Your task to perform on an android device: turn off smart reply in the gmail app Image 0: 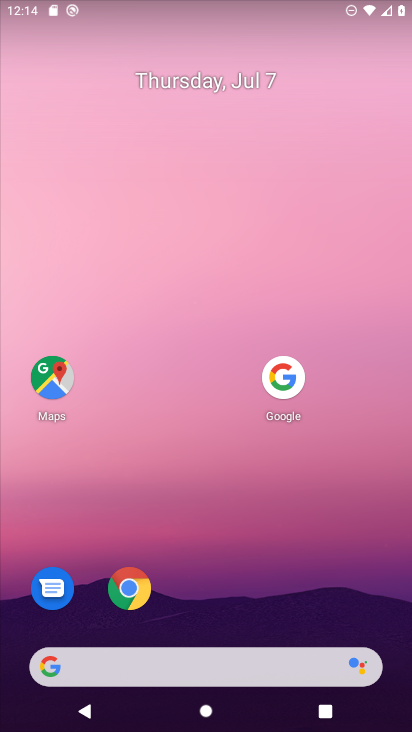
Step 0: drag from (240, 649) to (249, 63)
Your task to perform on an android device: turn off smart reply in the gmail app Image 1: 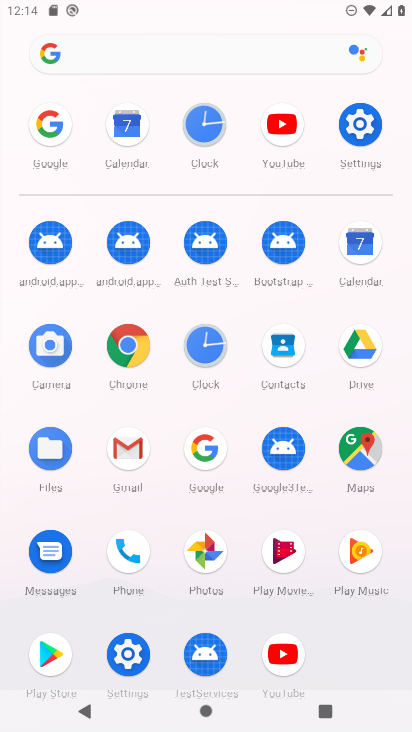
Step 1: click (135, 448)
Your task to perform on an android device: turn off smart reply in the gmail app Image 2: 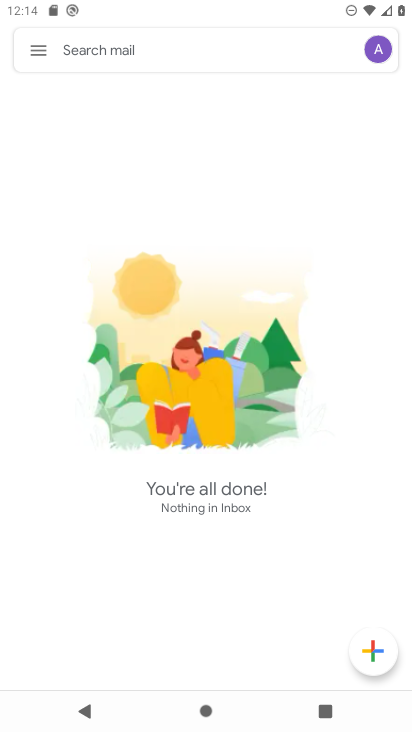
Step 2: click (37, 47)
Your task to perform on an android device: turn off smart reply in the gmail app Image 3: 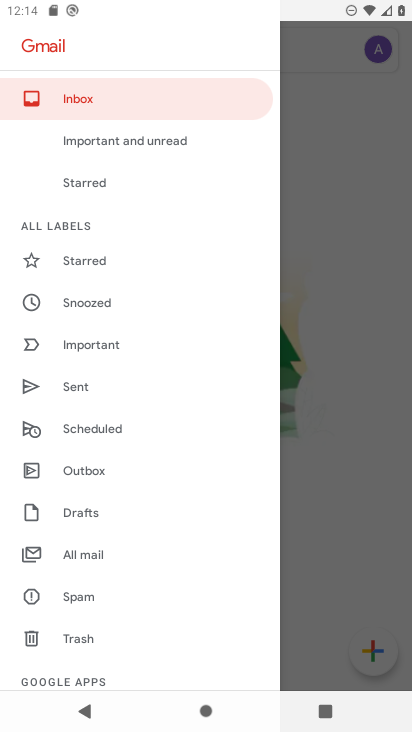
Step 3: drag from (149, 647) to (119, 193)
Your task to perform on an android device: turn off smart reply in the gmail app Image 4: 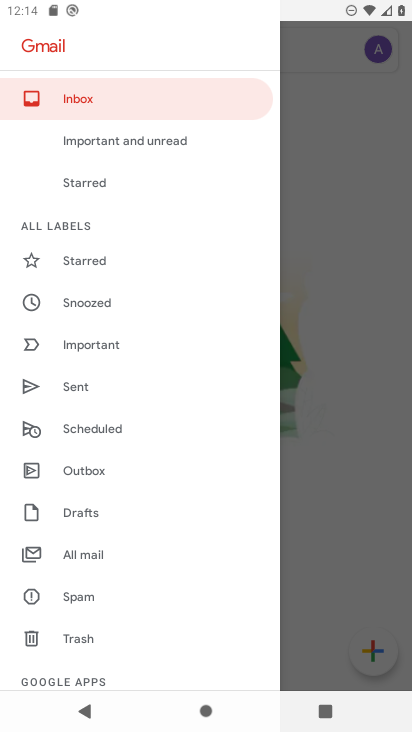
Step 4: drag from (93, 643) to (117, 139)
Your task to perform on an android device: turn off smart reply in the gmail app Image 5: 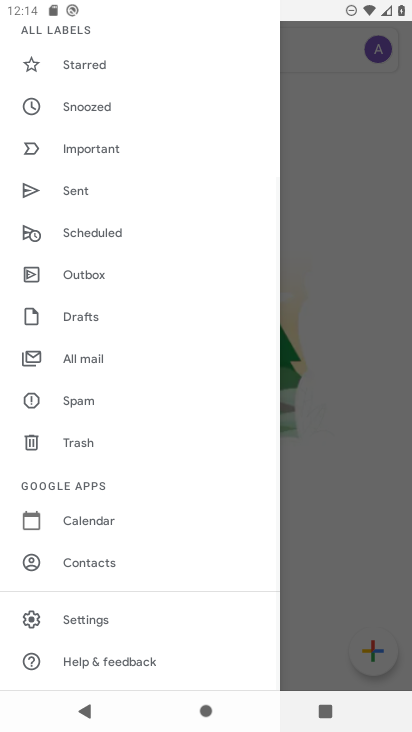
Step 5: click (96, 627)
Your task to perform on an android device: turn off smart reply in the gmail app Image 6: 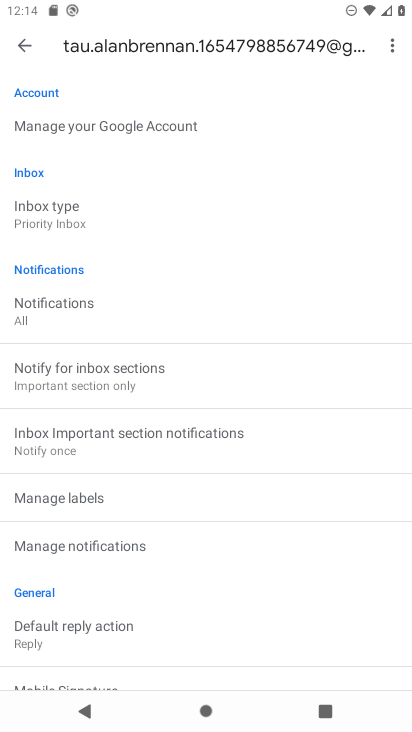
Step 6: drag from (124, 641) to (111, 227)
Your task to perform on an android device: turn off smart reply in the gmail app Image 7: 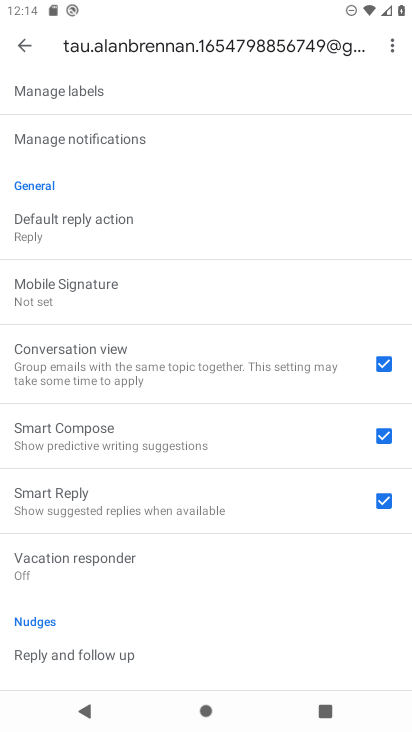
Step 7: click (383, 494)
Your task to perform on an android device: turn off smart reply in the gmail app Image 8: 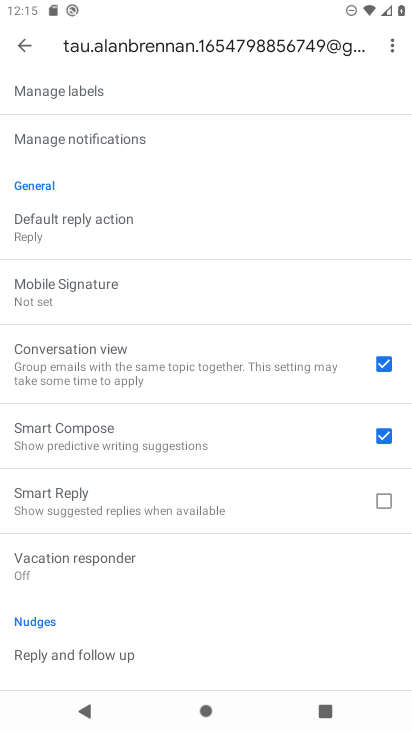
Step 8: task complete